Your task to perform on an android device: turn pop-ups on in chrome Image 0: 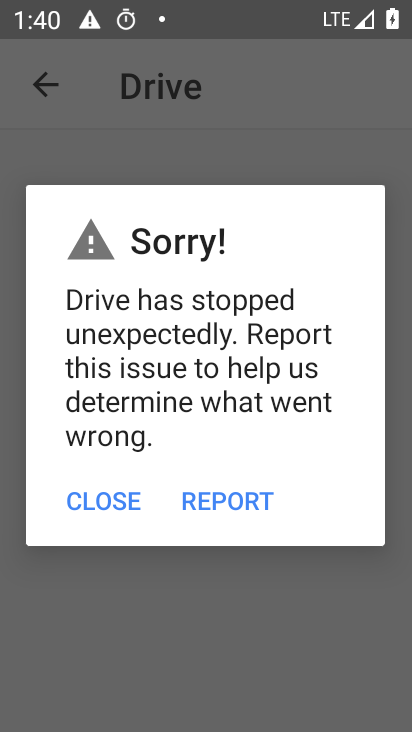
Step 0: press home button
Your task to perform on an android device: turn pop-ups on in chrome Image 1: 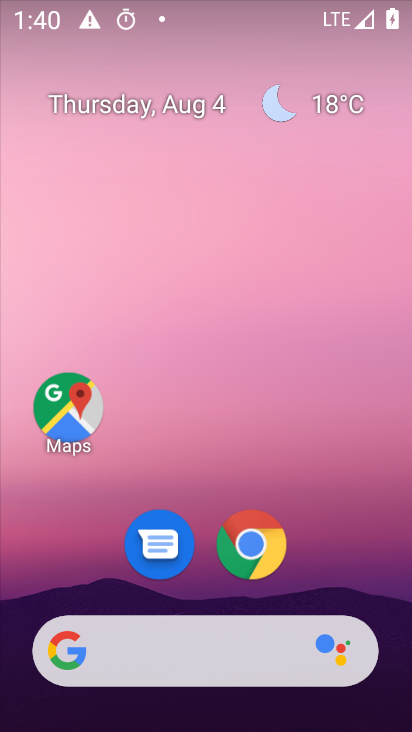
Step 1: click (253, 553)
Your task to perform on an android device: turn pop-ups on in chrome Image 2: 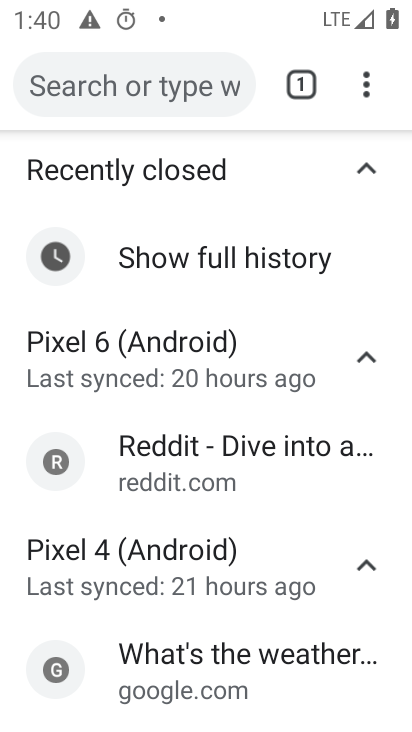
Step 2: click (360, 77)
Your task to perform on an android device: turn pop-ups on in chrome Image 3: 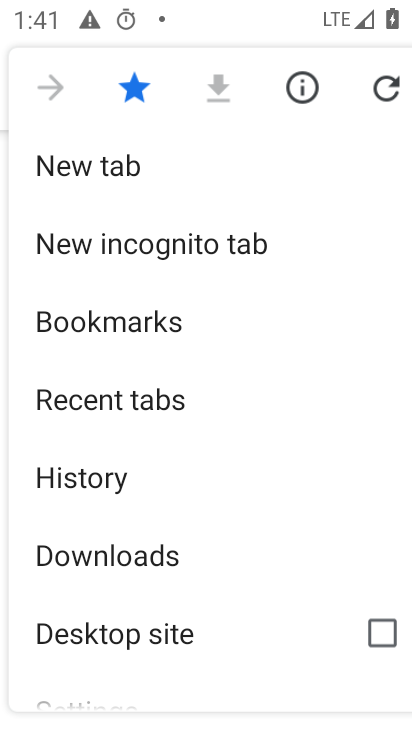
Step 3: drag from (252, 597) to (250, 279)
Your task to perform on an android device: turn pop-ups on in chrome Image 4: 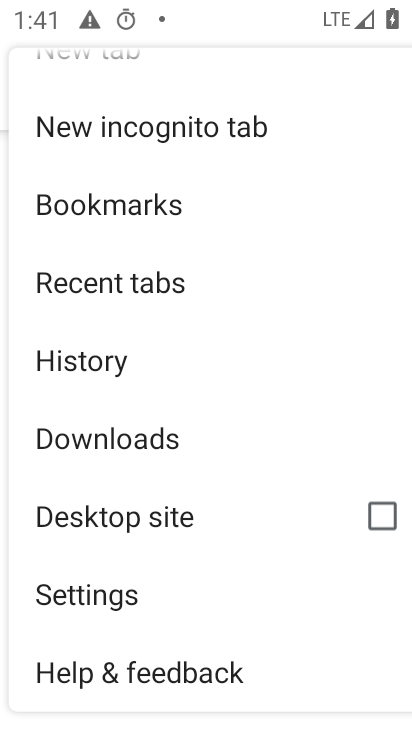
Step 4: drag from (248, 203) to (271, 593)
Your task to perform on an android device: turn pop-ups on in chrome Image 5: 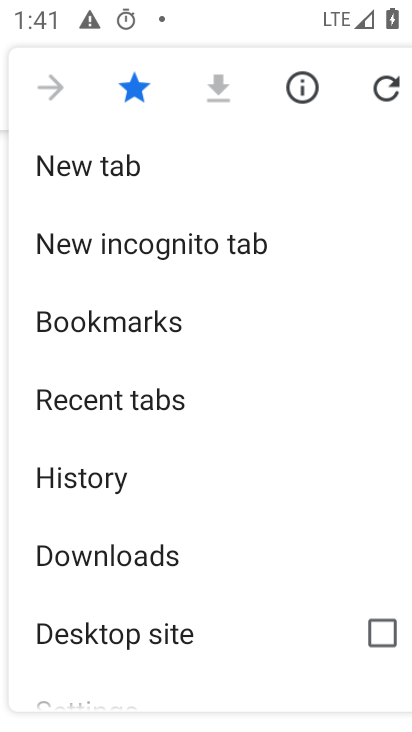
Step 5: drag from (213, 581) to (217, 229)
Your task to perform on an android device: turn pop-ups on in chrome Image 6: 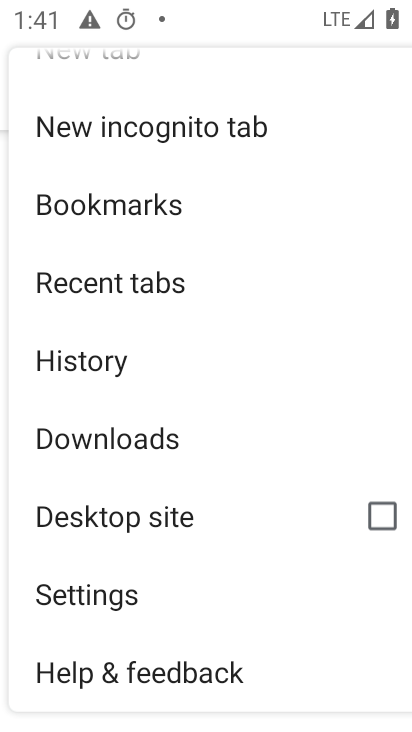
Step 6: click (73, 599)
Your task to perform on an android device: turn pop-ups on in chrome Image 7: 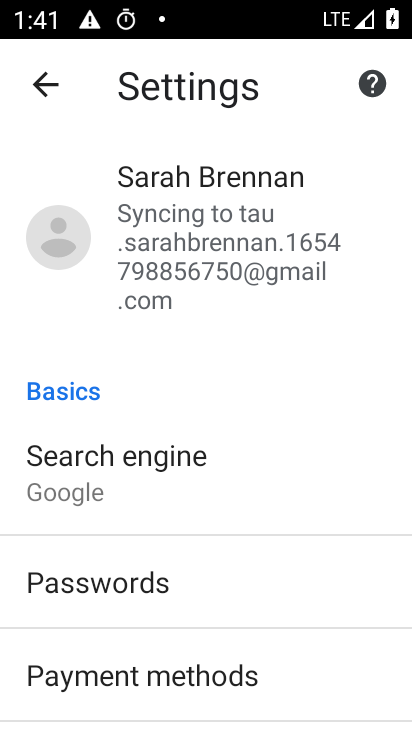
Step 7: drag from (198, 638) to (220, 236)
Your task to perform on an android device: turn pop-ups on in chrome Image 8: 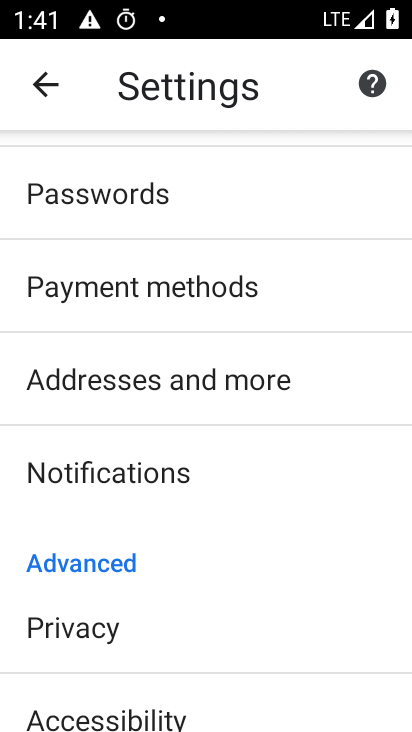
Step 8: drag from (247, 663) to (226, 284)
Your task to perform on an android device: turn pop-ups on in chrome Image 9: 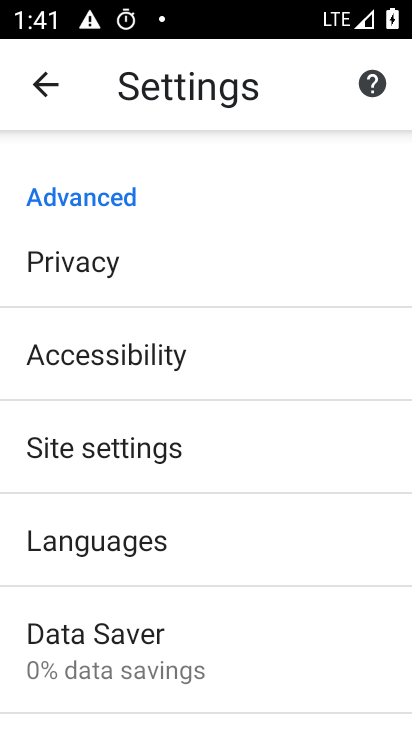
Step 9: drag from (304, 627) to (286, 343)
Your task to perform on an android device: turn pop-ups on in chrome Image 10: 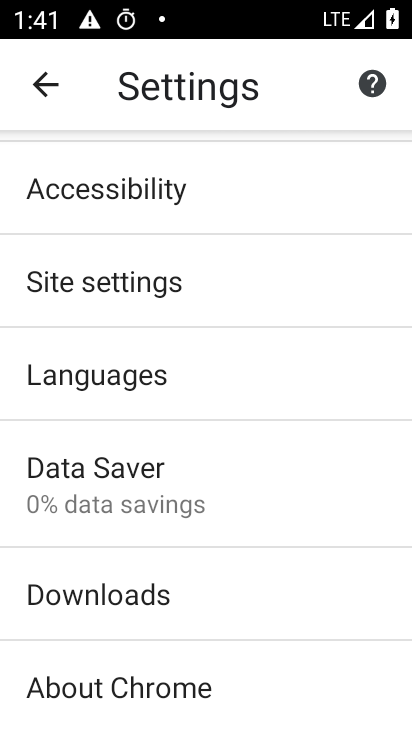
Step 10: drag from (293, 634) to (276, 304)
Your task to perform on an android device: turn pop-ups on in chrome Image 11: 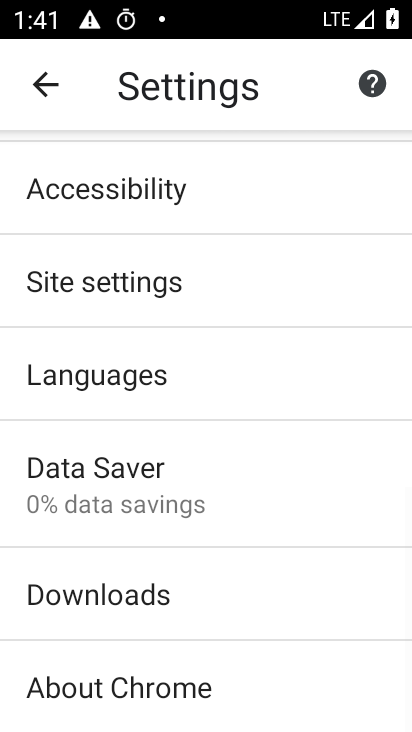
Step 11: drag from (281, 637) to (251, 256)
Your task to perform on an android device: turn pop-ups on in chrome Image 12: 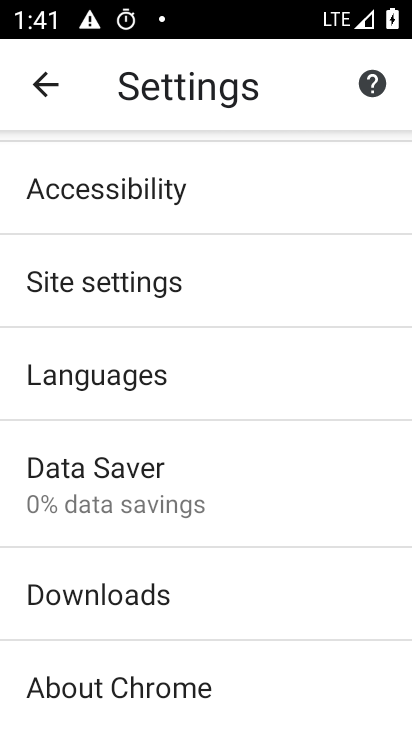
Step 12: drag from (245, 211) to (264, 607)
Your task to perform on an android device: turn pop-ups on in chrome Image 13: 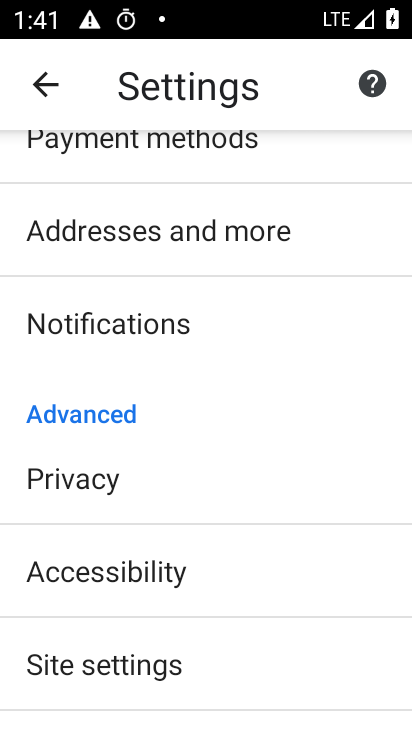
Step 13: click (120, 669)
Your task to perform on an android device: turn pop-ups on in chrome Image 14: 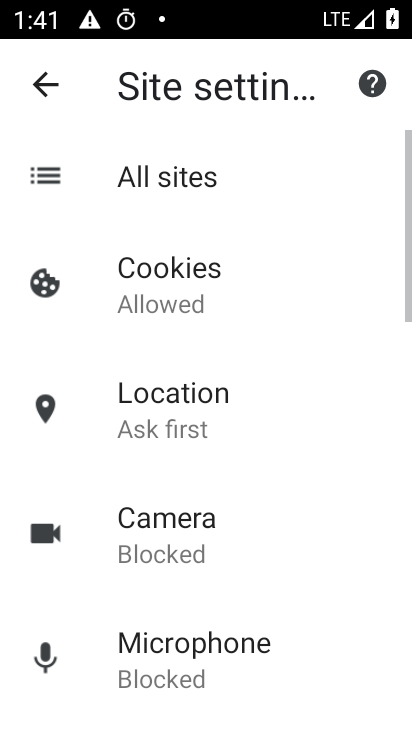
Step 14: drag from (262, 689) to (265, 240)
Your task to perform on an android device: turn pop-ups on in chrome Image 15: 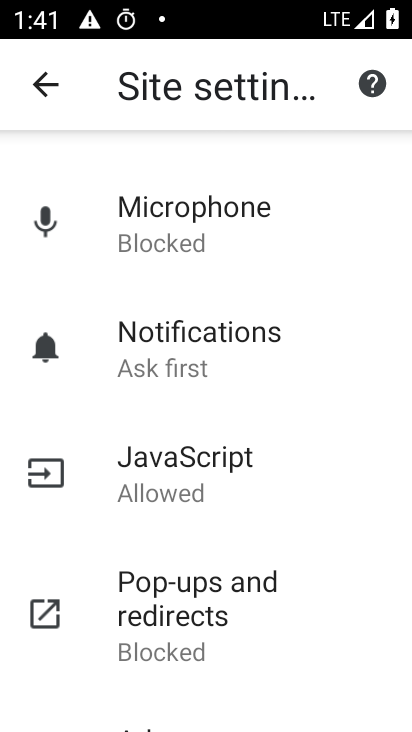
Step 15: click (179, 592)
Your task to perform on an android device: turn pop-ups on in chrome Image 16: 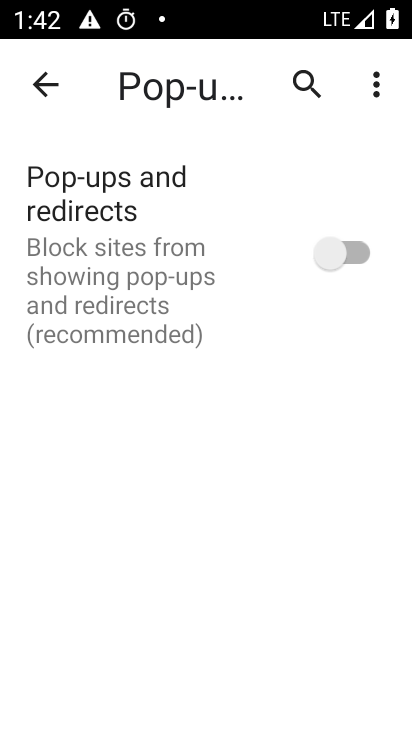
Step 16: click (355, 256)
Your task to perform on an android device: turn pop-ups on in chrome Image 17: 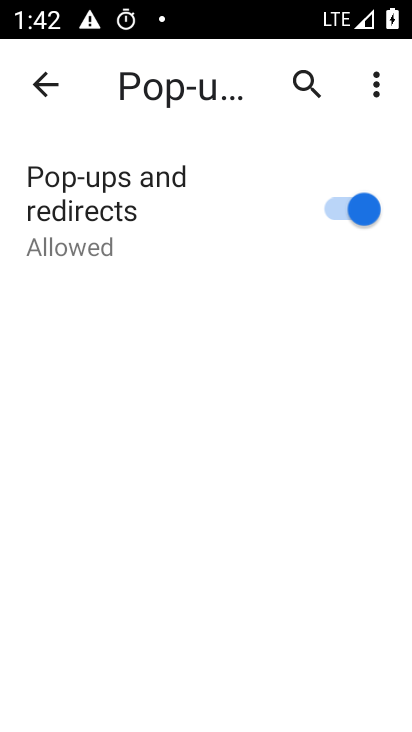
Step 17: task complete